Your task to perform on an android device: Go to Yahoo.com Image 0: 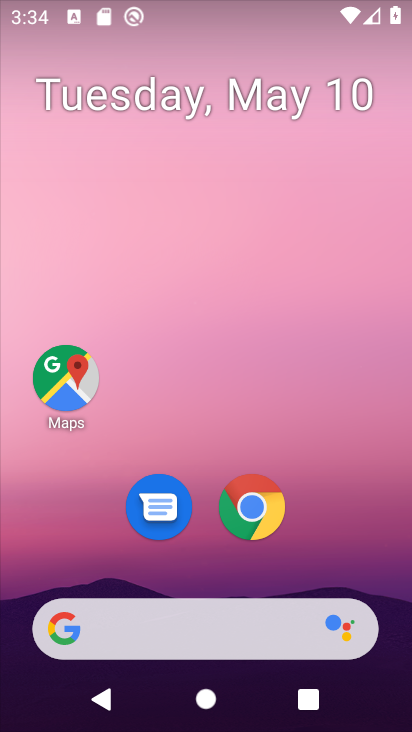
Step 0: click (248, 504)
Your task to perform on an android device: Go to Yahoo.com Image 1: 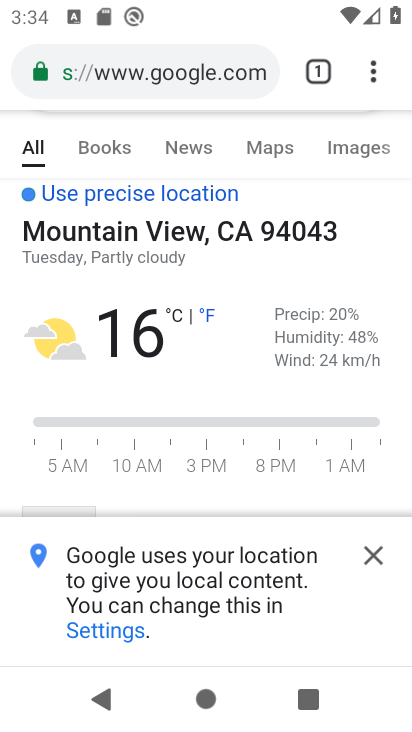
Step 1: click (150, 79)
Your task to perform on an android device: Go to Yahoo.com Image 2: 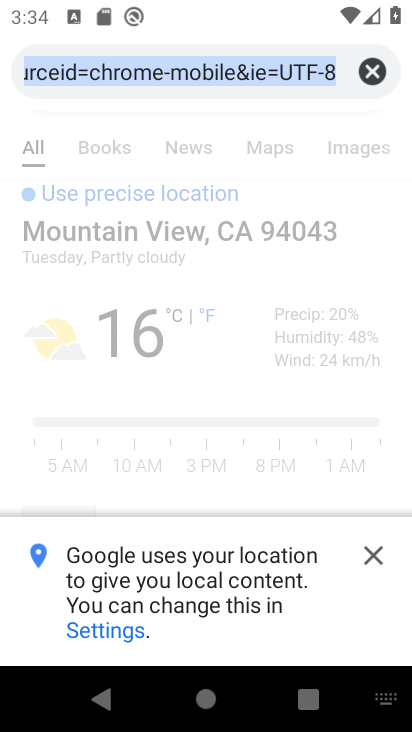
Step 2: type "Yahoo.com"
Your task to perform on an android device: Go to Yahoo.com Image 3: 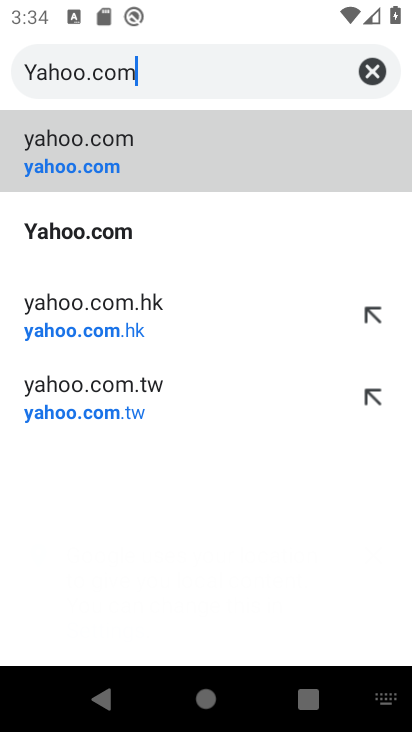
Step 3: click (92, 145)
Your task to perform on an android device: Go to Yahoo.com Image 4: 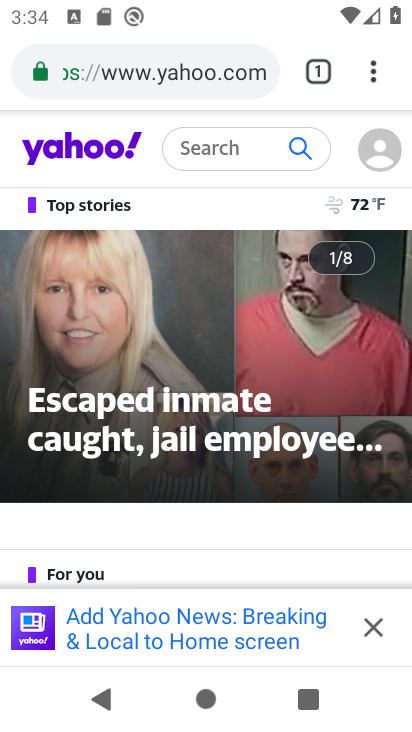
Step 4: task complete